Your task to perform on an android device: open sync settings in chrome Image 0: 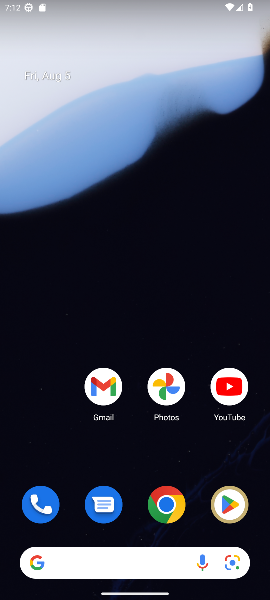
Step 0: click (169, 517)
Your task to perform on an android device: open sync settings in chrome Image 1: 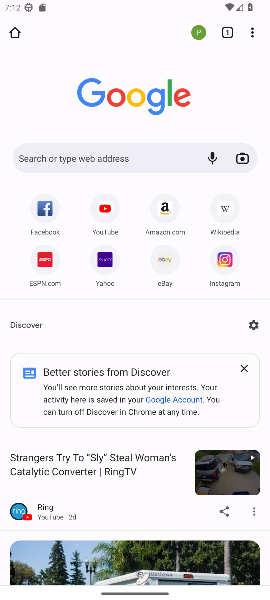
Step 1: drag from (250, 31) to (142, 297)
Your task to perform on an android device: open sync settings in chrome Image 2: 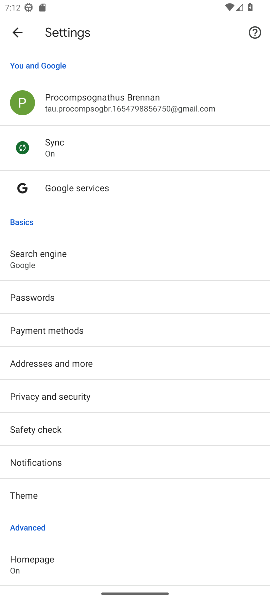
Step 2: click (86, 110)
Your task to perform on an android device: open sync settings in chrome Image 3: 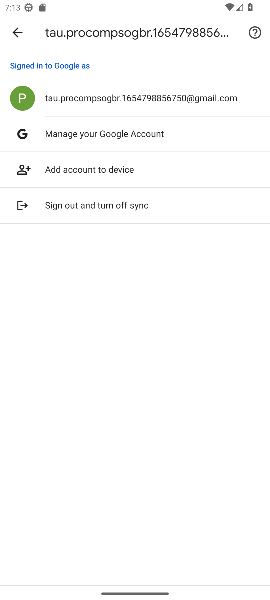
Step 3: click (95, 99)
Your task to perform on an android device: open sync settings in chrome Image 4: 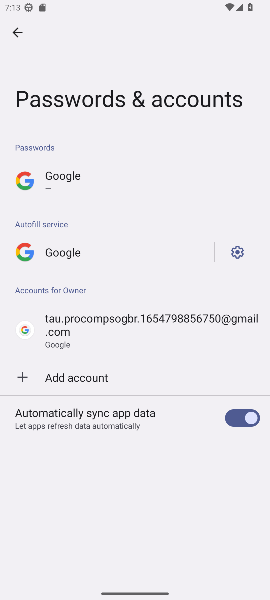
Step 4: click (80, 331)
Your task to perform on an android device: open sync settings in chrome Image 5: 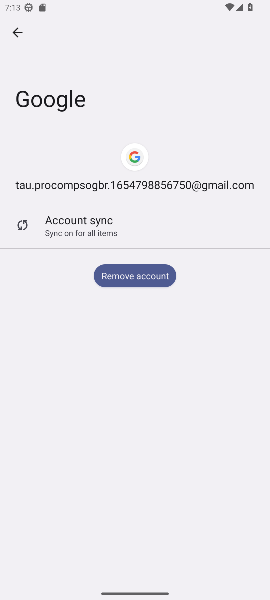
Step 5: click (82, 215)
Your task to perform on an android device: open sync settings in chrome Image 6: 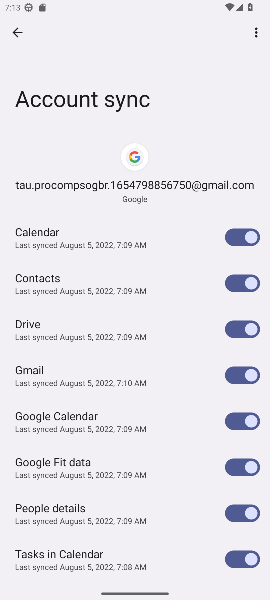
Step 6: task complete